Your task to perform on an android device: install app "Microsoft Authenticator" Image 0: 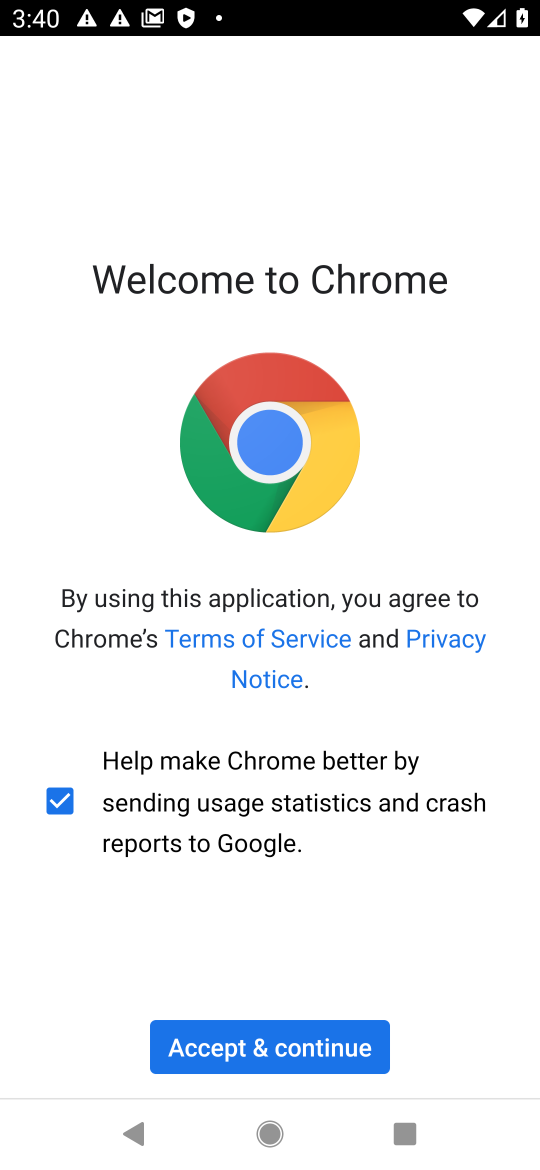
Step 0: press home button
Your task to perform on an android device: install app "Microsoft Authenticator" Image 1: 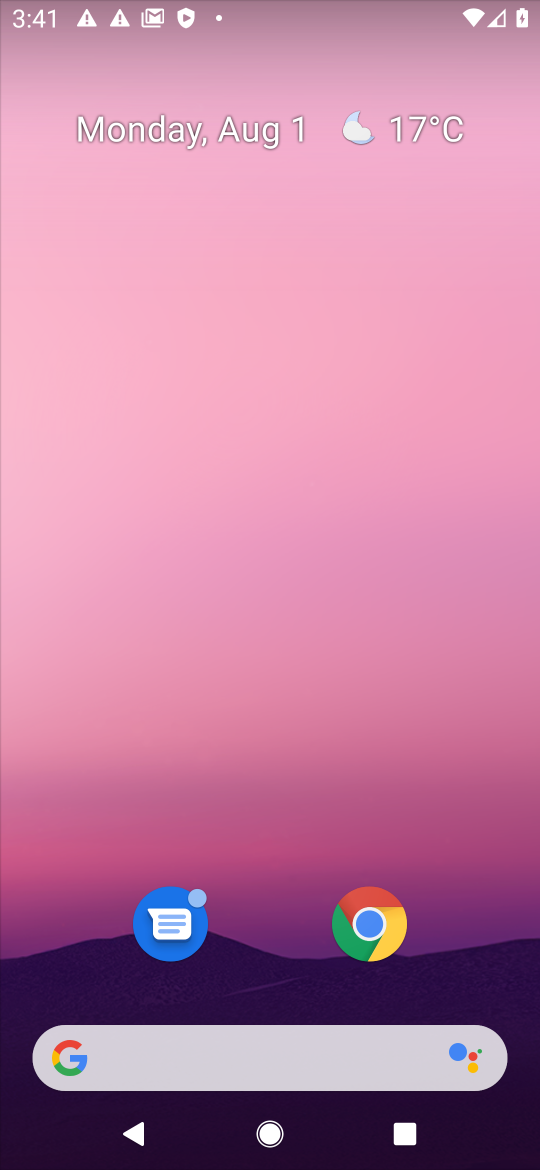
Step 1: drag from (311, 1029) to (304, 218)
Your task to perform on an android device: install app "Microsoft Authenticator" Image 2: 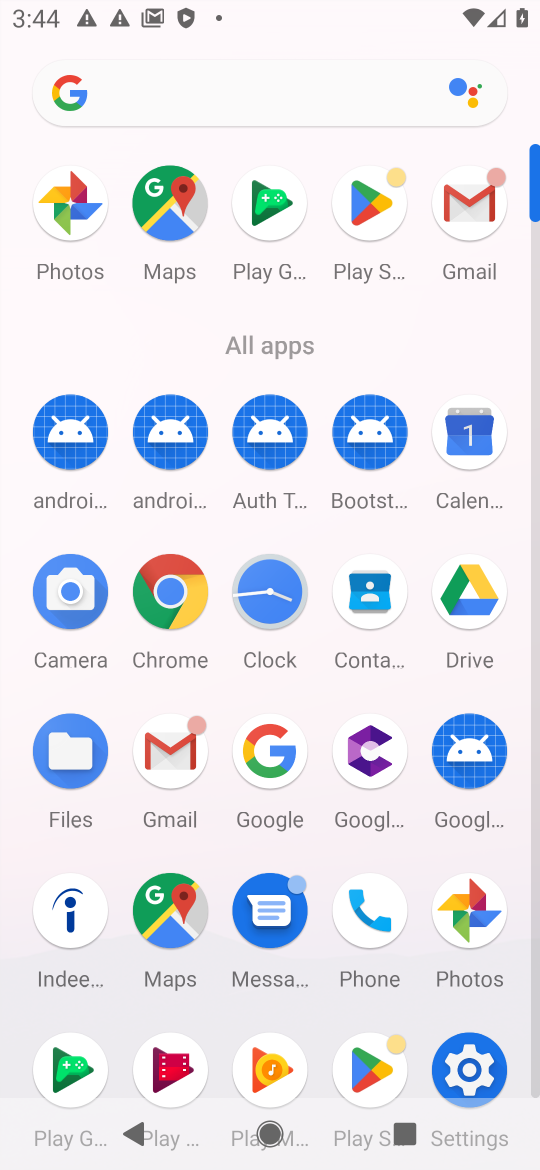
Step 2: click (391, 205)
Your task to perform on an android device: install app "Microsoft Authenticator" Image 3: 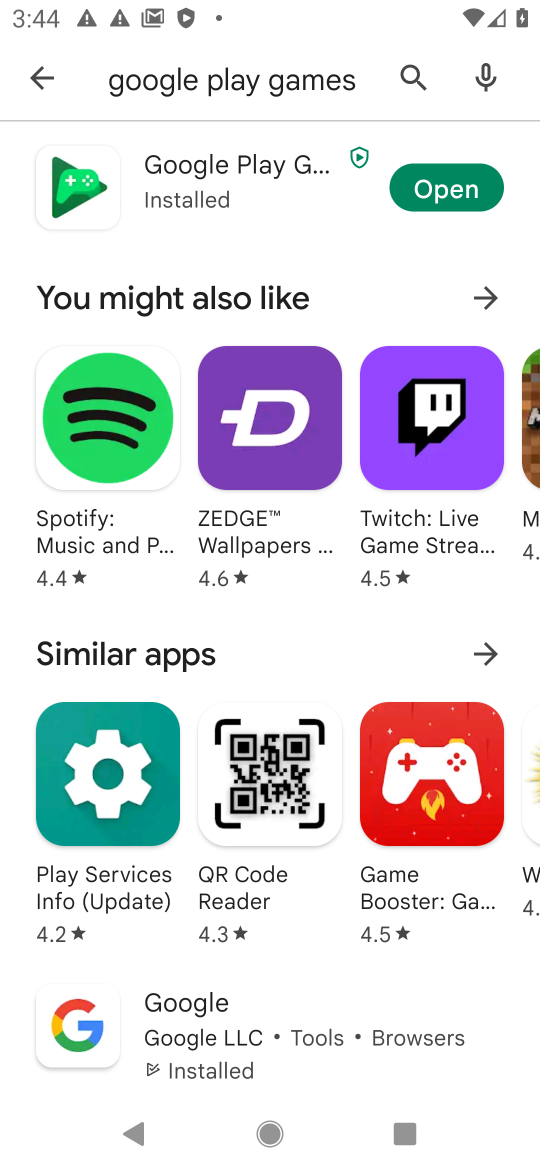
Step 3: click (417, 68)
Your task to perform on an android device: install app "Microsoft Authenticator" Image 4: 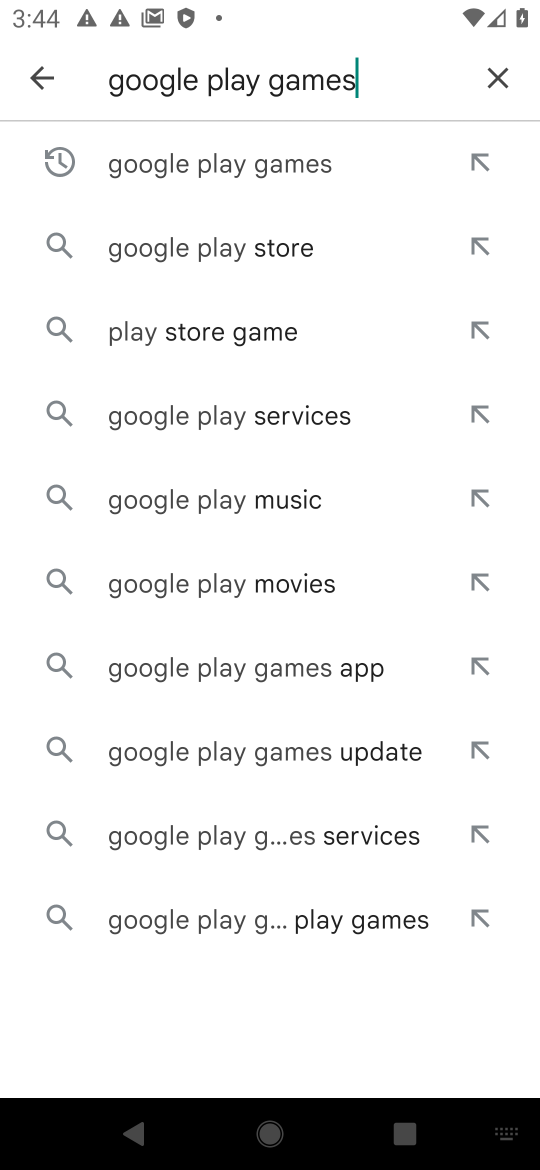
Step 4: click (506, 68)
Your task to perform on an android device: install app "Microsoft Authenticator" Image 5: 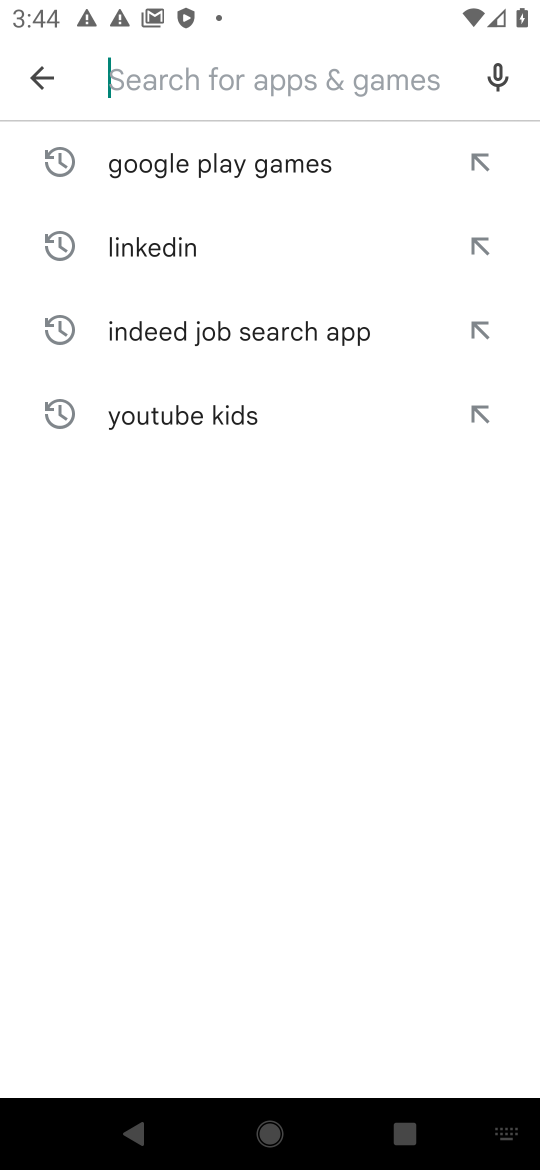
Step 5: type "Microsoft Authenticator"
Your task to perform on an android device: install app "Microsoft Authenticator" Image 6: 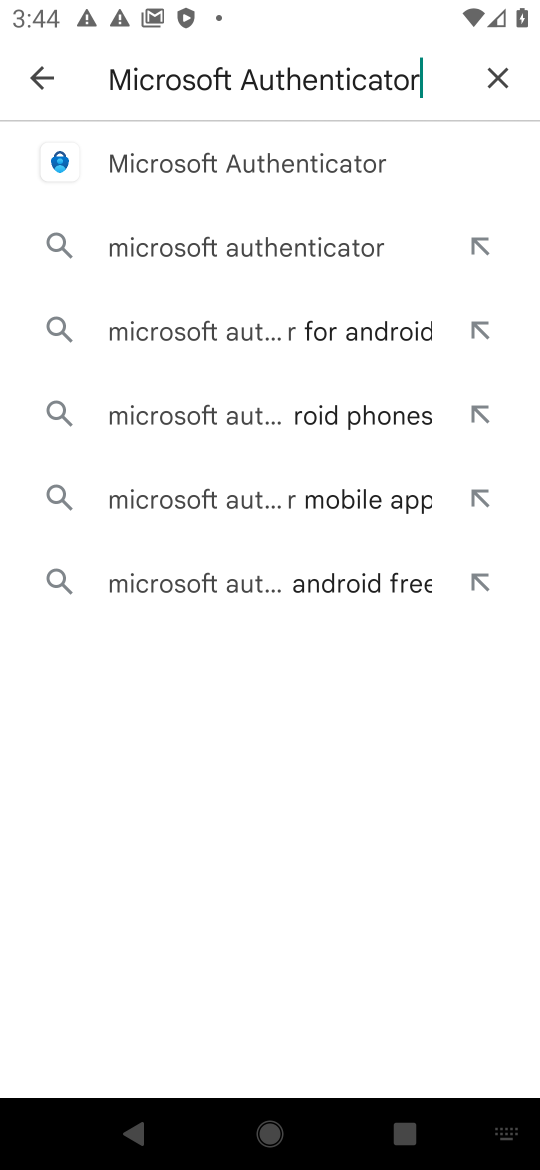
Step 6: type ""
Your task to perform on an android device: install app "Microsoft Authenticator" Image 7: 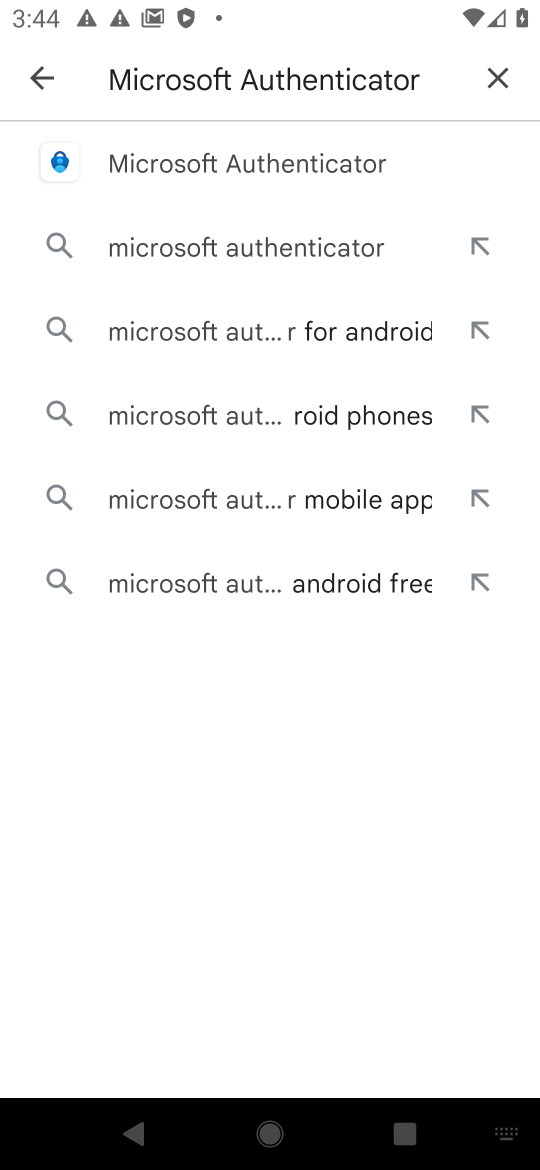
Step 7: click (301, 157)
Your task to perform on an android device: install app "Microsoft Authenticator" Image 8: 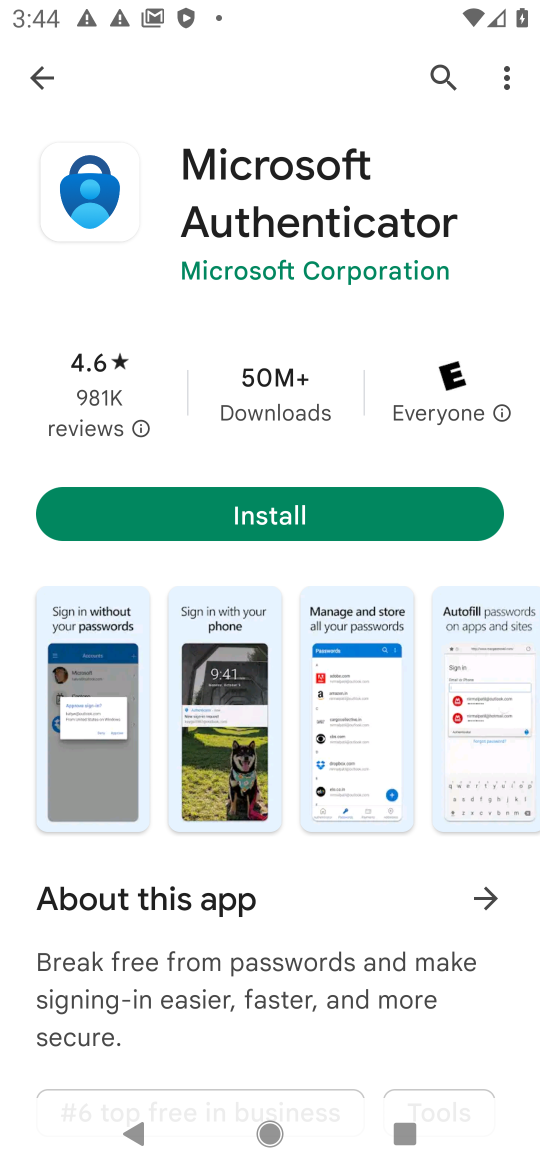
Step 8: click (229, 514)
Your task to perform on an android device: install app "Microsoft Authenticator" Image 9: 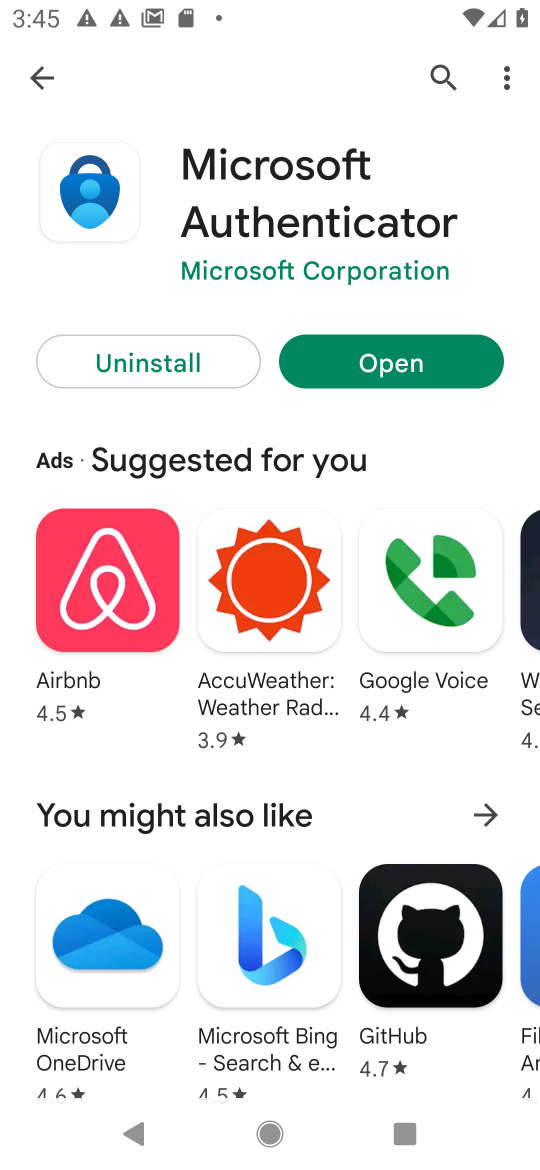
Step 9: task complete